Your task to perform on an android device: toggle notifications settings in the gmail app Image 0: 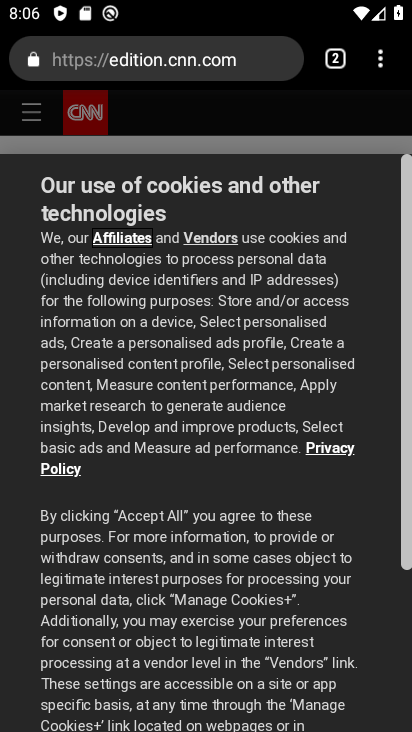
Step 0: press home button
Your task to perform on an android device: toggle notifications settings in the gmail app Image 1: 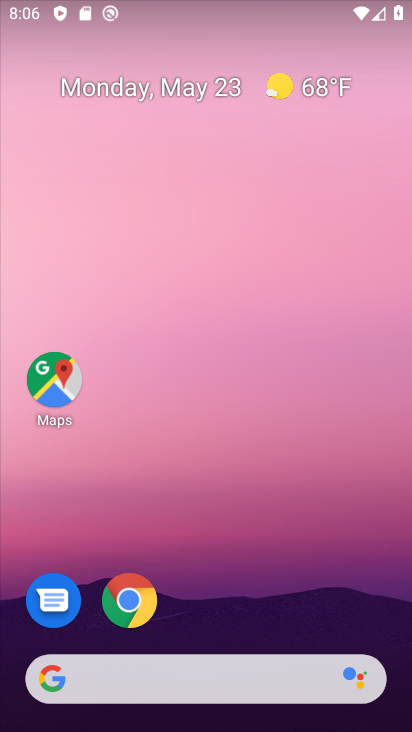
Step 1: drag from (47, 603) to (267, 194)
Your task to perform on an android device: toggle notifications settings in the gmail app Image 2: 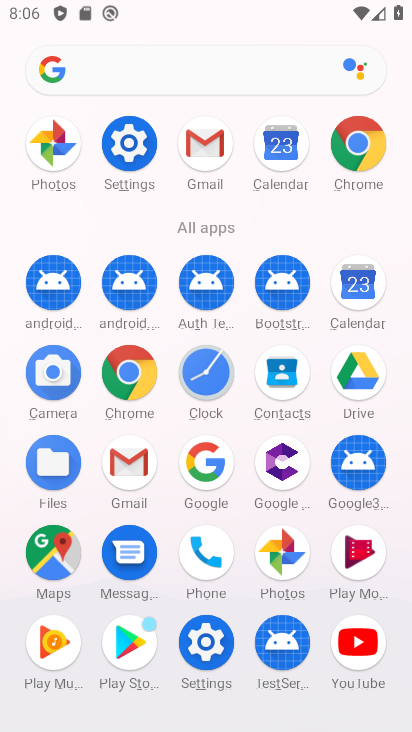
Step 2: click (202, 142)
Your task to perform on an android device: toggle notifications settings in the gmail app Image 3: 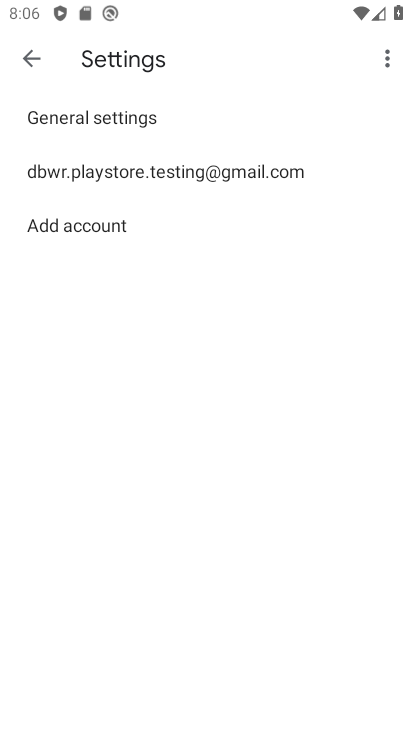
Step 3: click (195, 169)
Your task to perform on an android device: toggle notifications settings in the gmail app Image 4: 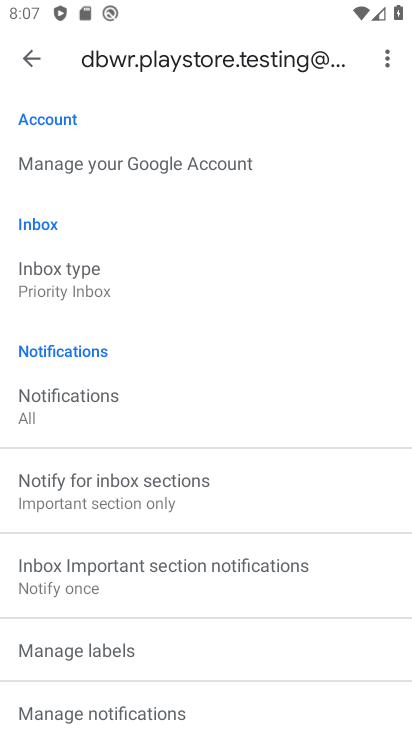
Step 4: click (77, 698)
Your task to perform on an android device: toggle notifications settings in the gmail app Image 5: 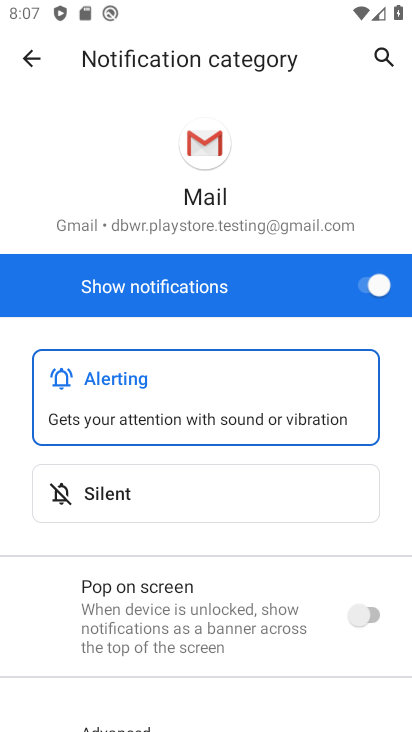
Step 5: click (379, 287)
Your task to perform on an android device: toggle notifications settings in the gmail app Image 6: 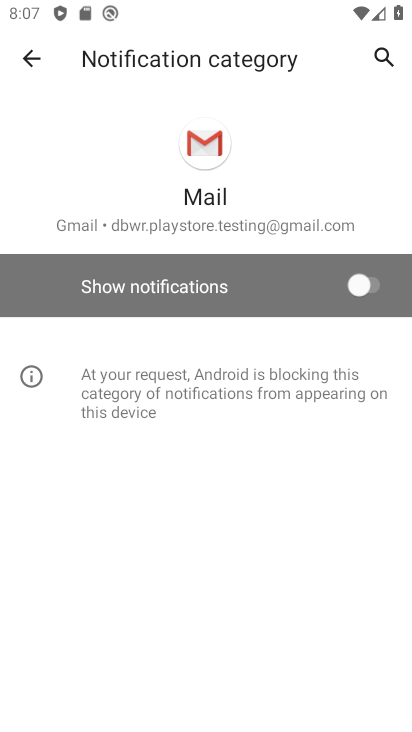
Step 6: task complete